Your task to perform on an android device: Search for Italian restaurants on Maps Image 0: 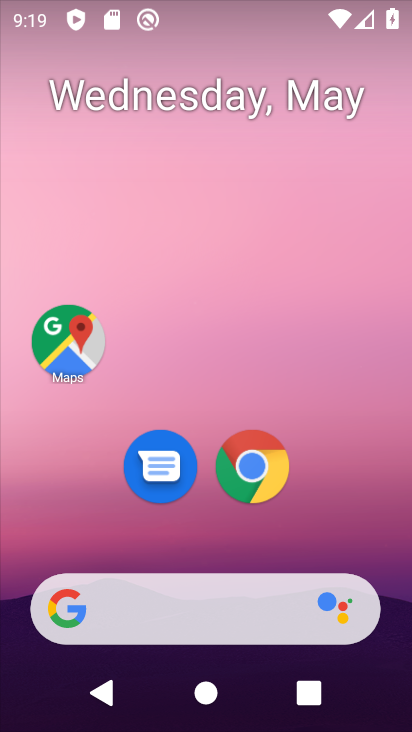
Step 0: drag from (298, 684) to (112, 216)
Your task to perform on an android device: Search for Italian restaurants on Maps Image 1: 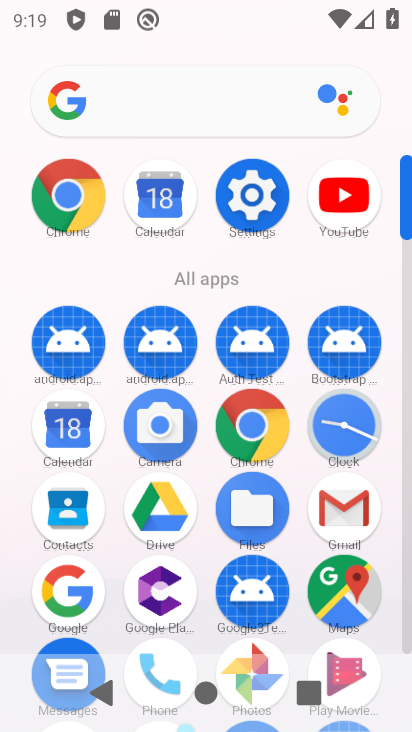
Step 1: click (338, 610)
Your task to perform on an android device: Search for Italian restaurants on Maps Image 2: 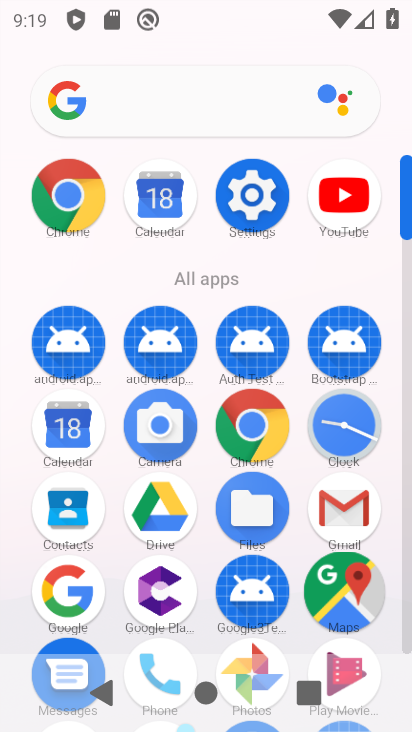
Step 2: click (334, 603)
Your task to perform on an android device: Search for Italian restaurants on Maps Image 3: 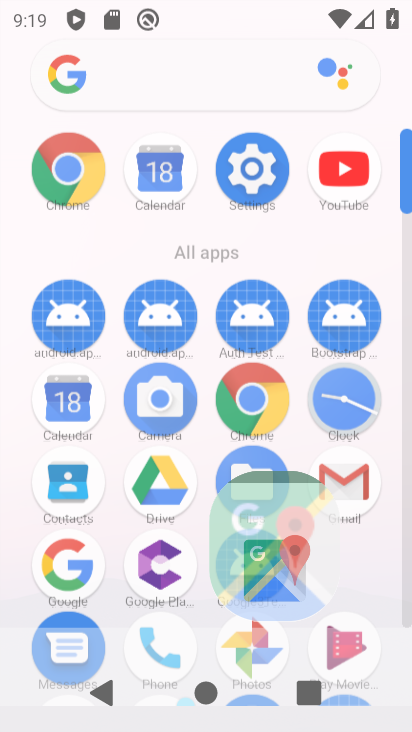
Step 3: click (331, 595)
Your task to perform on an android device: Search for Italian restaurants on Maps Image 4: 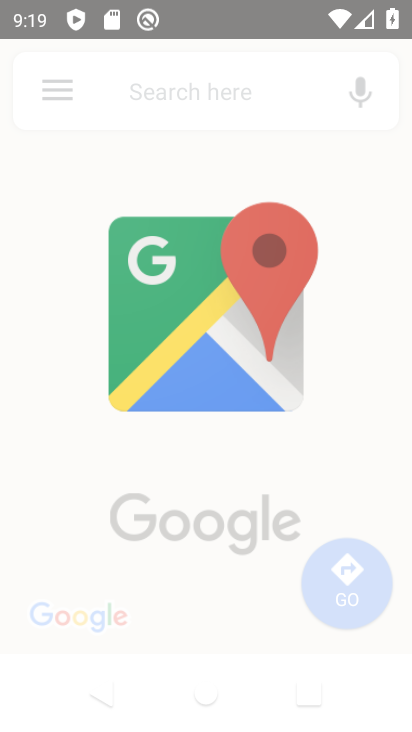
Step 4: drag from (175, 346) to (80, 66)
Your task to perform on an android device: Search for Italian restaurants on Maps Image 5: 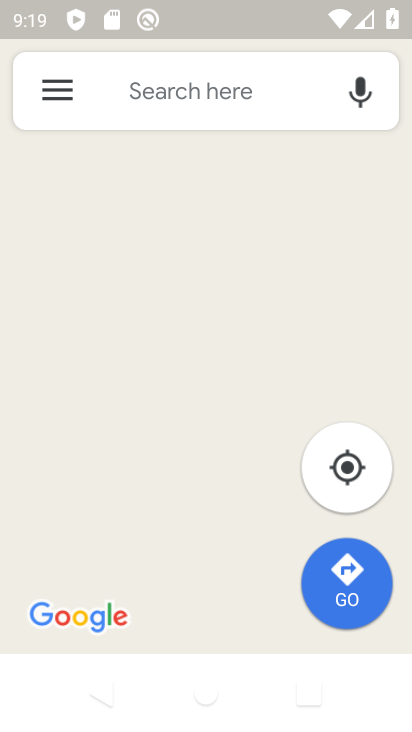
Step 5: drag from (175, 363) to (123, 45)
Your task to perform on an android device: Search for Italian restaurants on Maps Image 6: 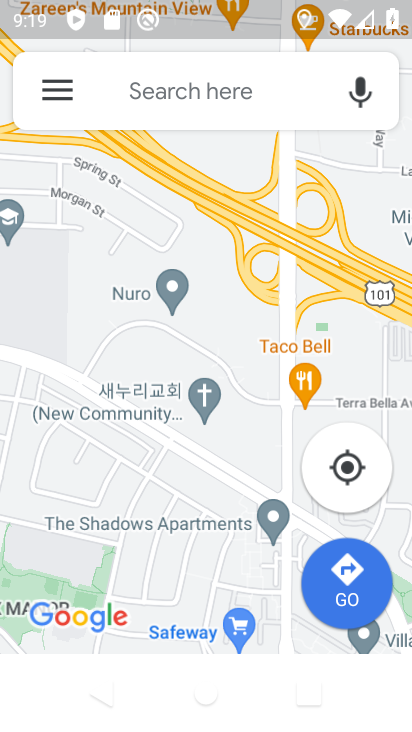
Step 6: click (48, 86)
Your task to perform on an android device: Search for Italian restaurants on Maps Image 7: 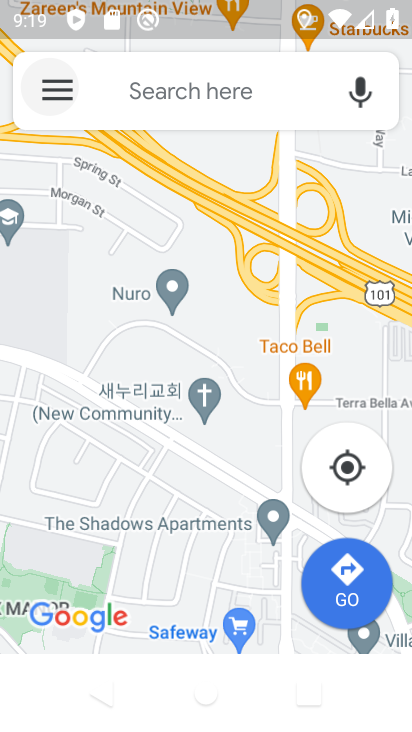
Step 7: click (49, 85)
Your task to perform on an android device: Search for Italian restaurants on Maps Image 8: 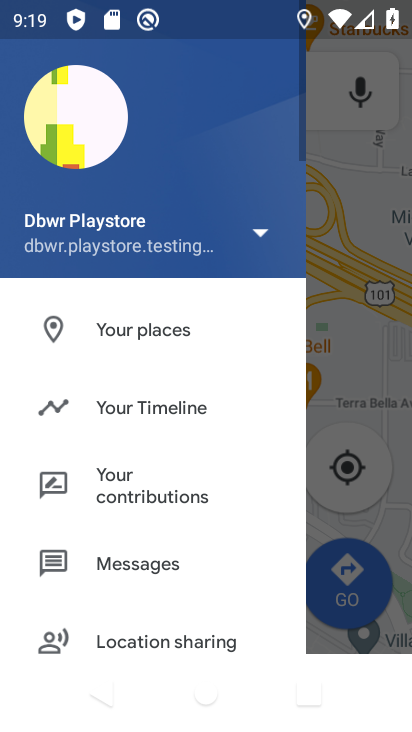
Step 8: click (50, 85)
Your task to perform on an android device: Search for Italian restaurants on Maps Image 9: 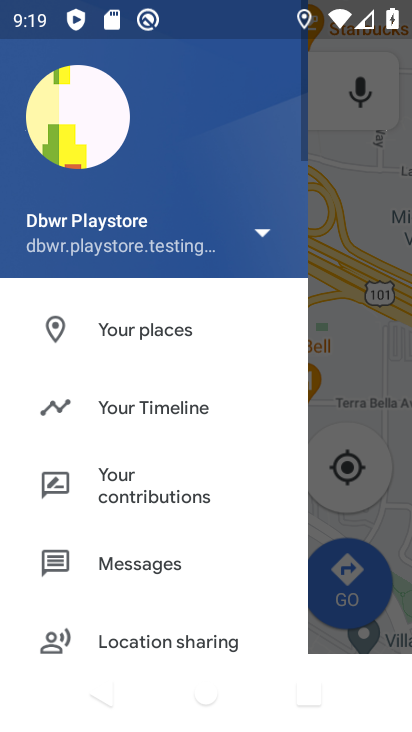
Step 9: click (60, 88)
Your task to perform on an android device: Search for Italian restaurants on Maps Image 10: 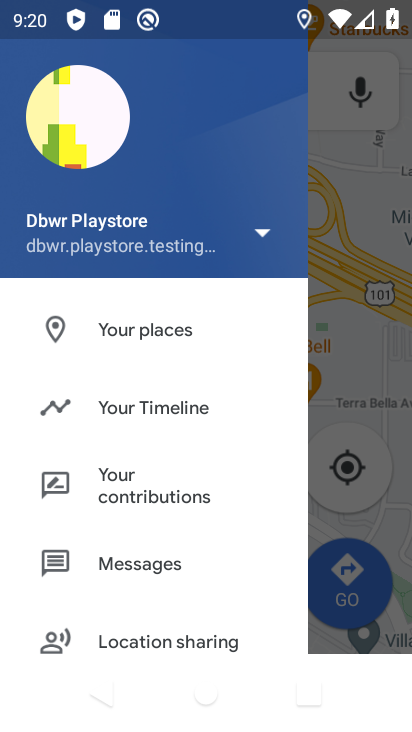
Step 10: click (160, 398)
Your task to perform on an android device: Search for Italian restaurants on Maps Image 11: 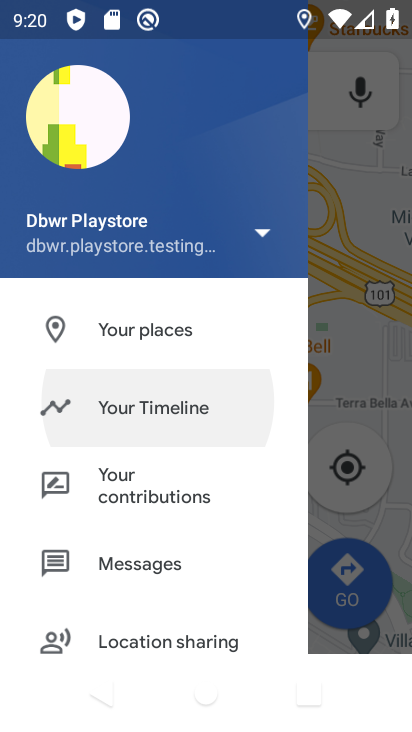
Step 11: click (159, 401)
Your task to perform on an android device: Search for Italian restaurants on Maps Image 12: 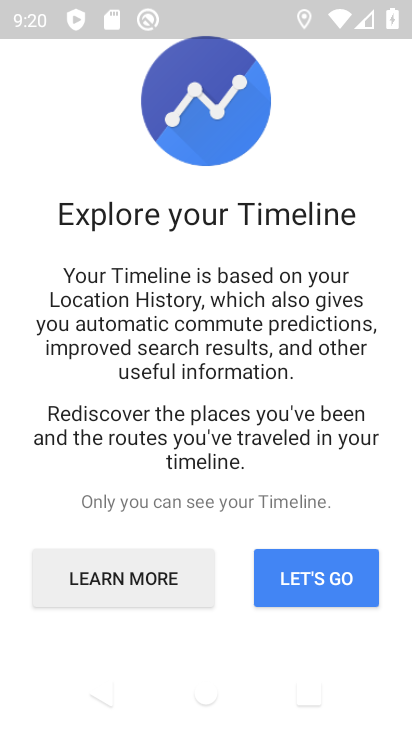
Step 12: click (323, 572)
Your task to perform on an android device: Search for Italian restaurants on Maps Image 13: 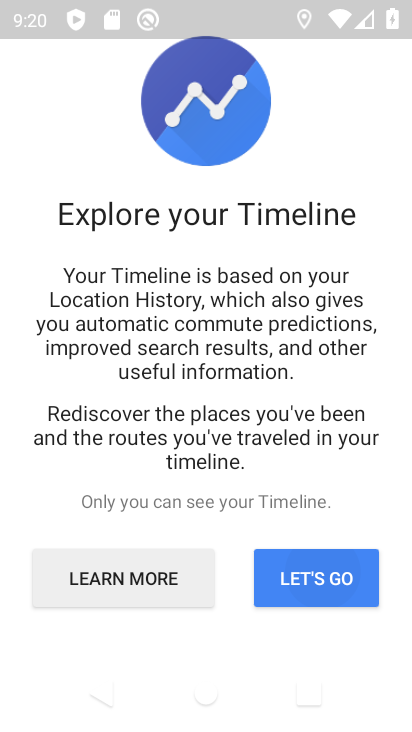
Step 13: click (323, 572)
Your task to perform on an android device: Search for Italian restaurants on Maps Image 14: 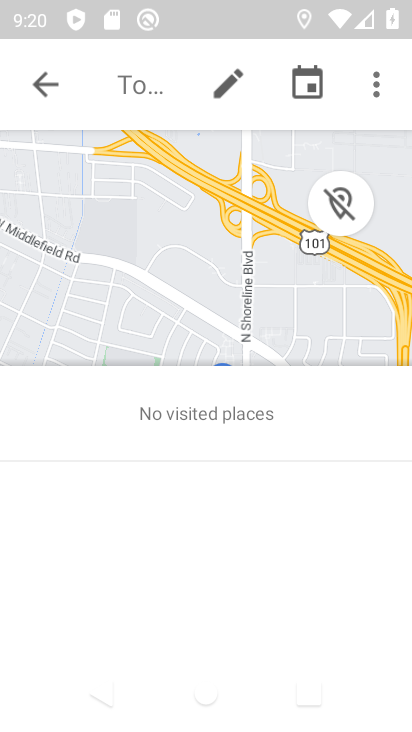
Step 14: drag from (370, 87) to (218, 417)
Your task to perform on an android device: Search for Italian restaurants on Maps Image 15: 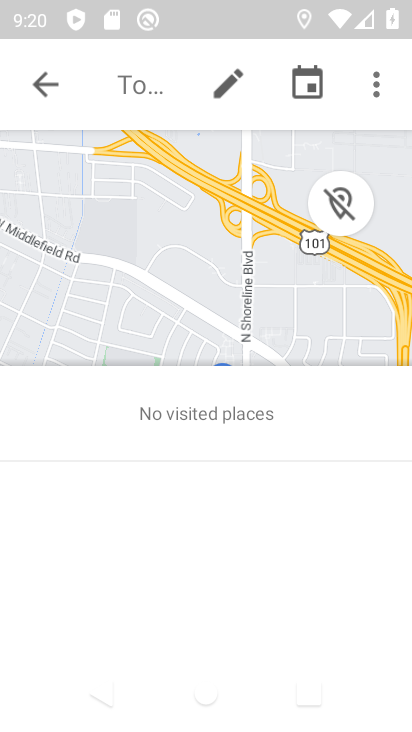
Step 15: click (38, 84)
Your task to perform on an android device: Search for Italian restaurants on Maps Image 16: 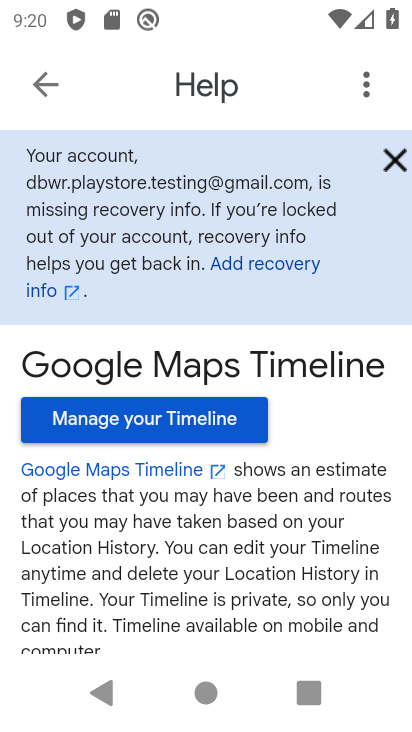
Step 16: click (44, 75)
Your task to perform on an android device: Search for Italian restaurants on Maps Image 17: 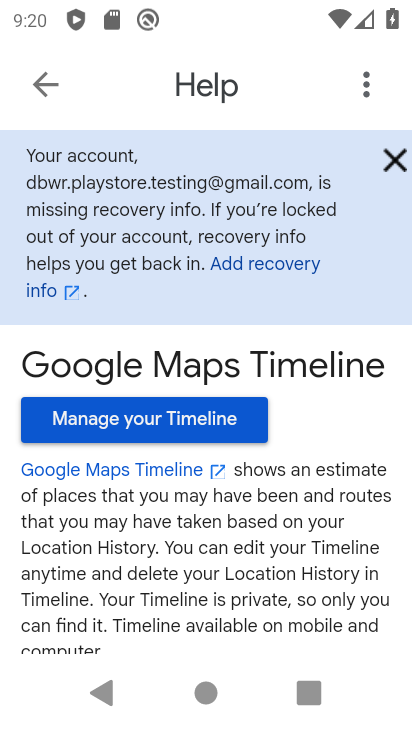
Step 17: click (46, 74)
Your task to perform on an android device: Search for Italian restaurants on Maps Image 18: 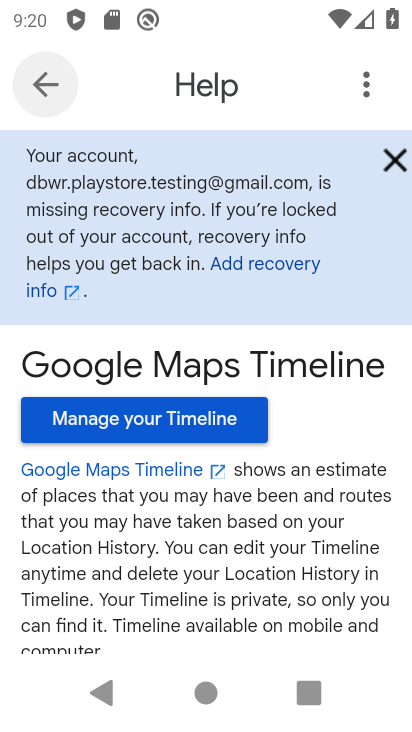
Step 18: click (46, 74)
Your task to perform on an android device: Search for Italian restaurants on Maps Image 19: 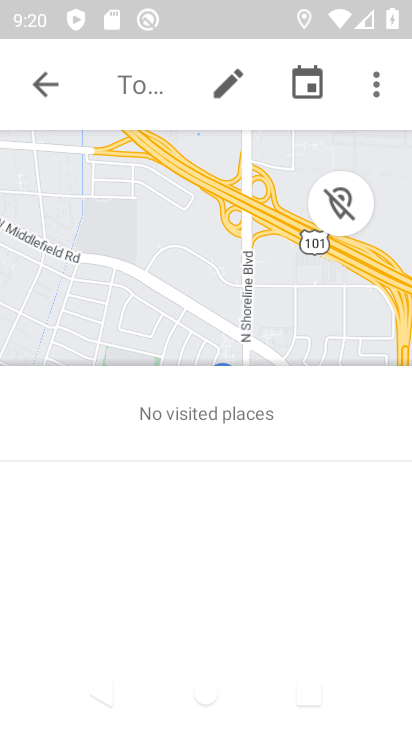
Step 19: click (33, 73)
Your task to perform on an android device: Search for Italian restaurants on Maps Image 20: 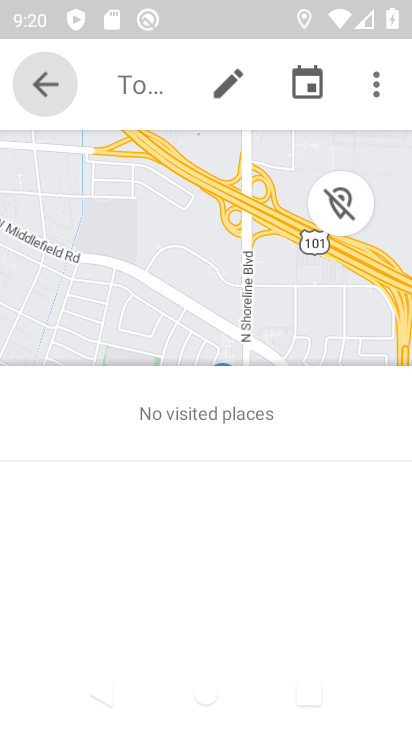
Step 20: click (39, 95)
Your task to perform on an android device: Search for Italian restaurants on Maps Image 21: 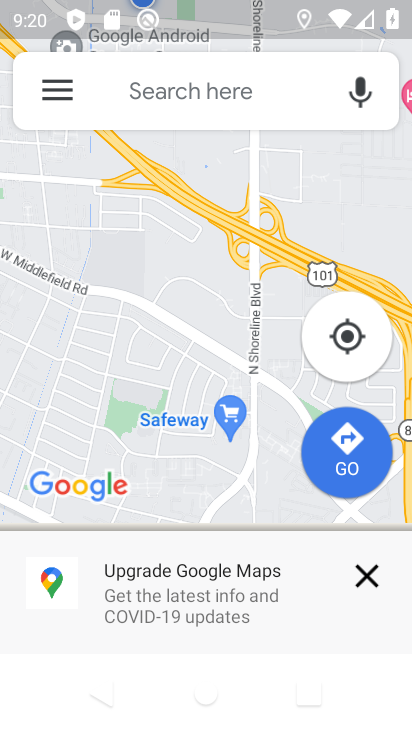
Step 21: click (132, 79)
Your task to perform on an android device: Search for Italian restaurants on Maps Image 22: 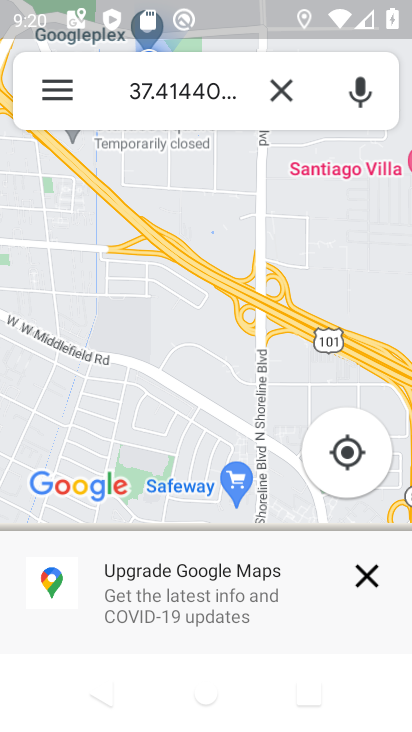
Step 22: click (276, 89)
Your task to perform on an android device: Search for Italian restaurants on Maps Image 23: 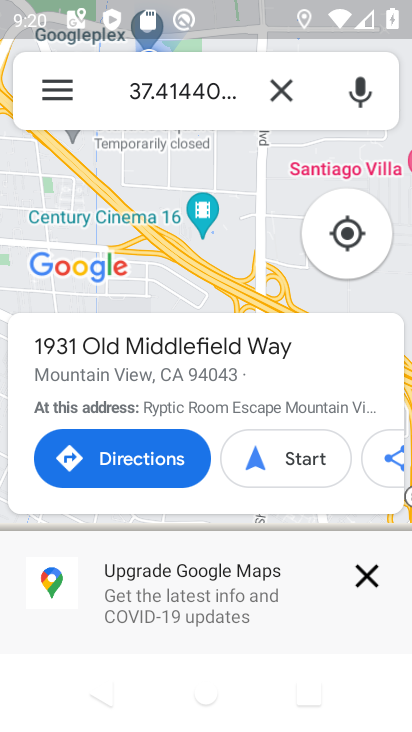
Step 23: click (276, 89)
Your task to perform on an android device: Search for Italian restaurants on Maps Image 24: 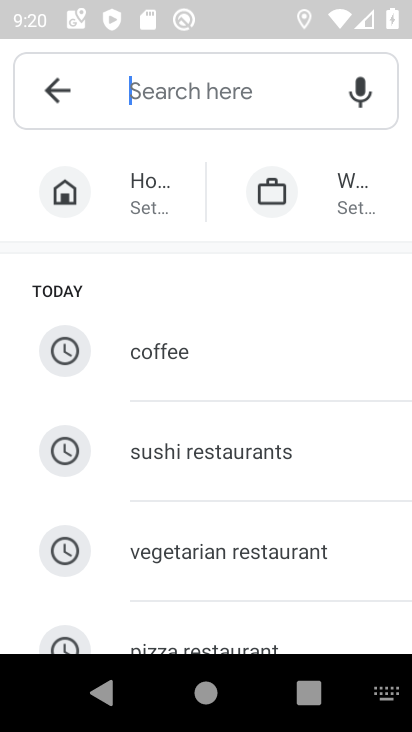
Step 24: type "italian restuarants"
Your task to perform on an android device: Search for Italian restaurants on Maps Image 25: 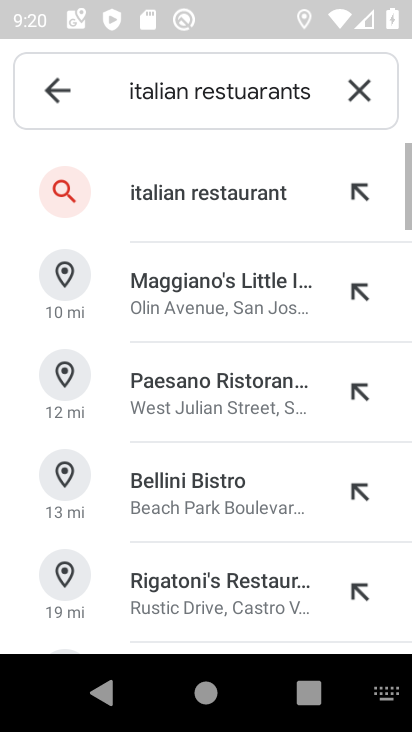
Step 25: click (198, 197)
Your task to perform on an android device: Search for Italian restaurants on Maps Image 26: 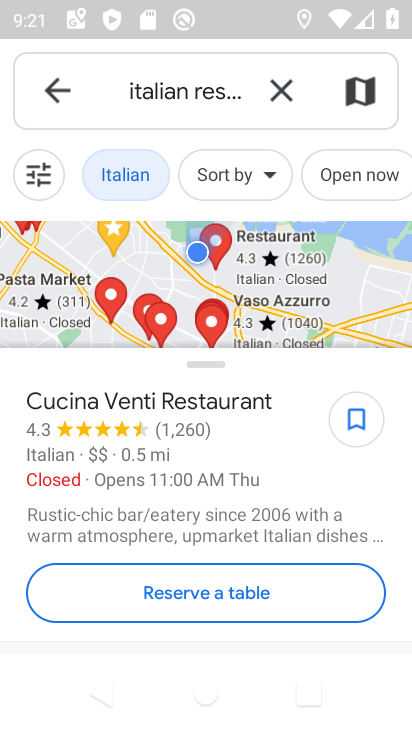
Step 26: task complete